Your task to perform on an android device: see tabs open on other devices in the chrome app Image 0: 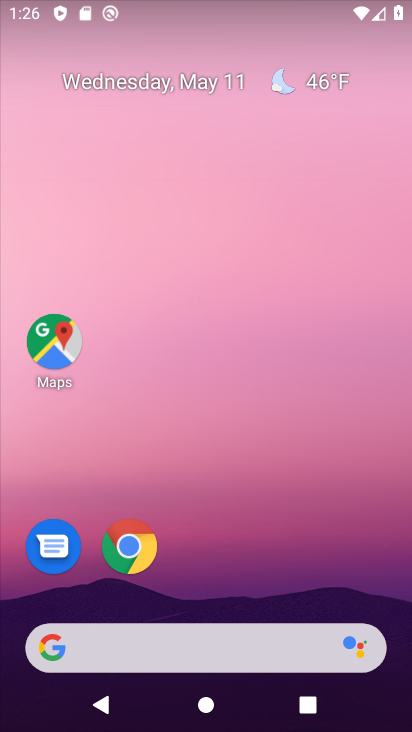
Step 0: drag from (196, 584) to (318, 98)
Your task to perform on an android device: see tabs open on other devices in the chrome app Image 1: 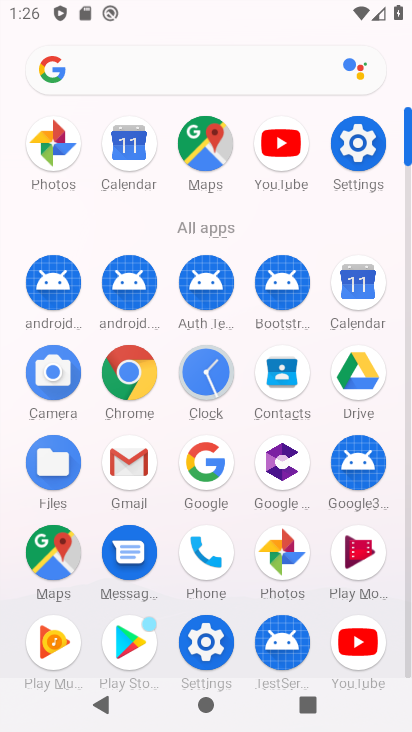
Step 1: click (124, 366)
Your task to perform on an android device: see tabs open on other devices in the chrome app Image 2: 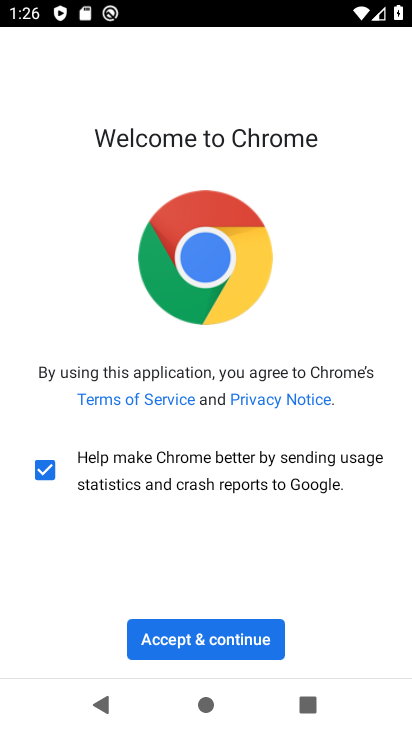
Step 2: click (214, 633)
Your task to perform on an android device: see tabs open on other devices in the chrome app Image 3: 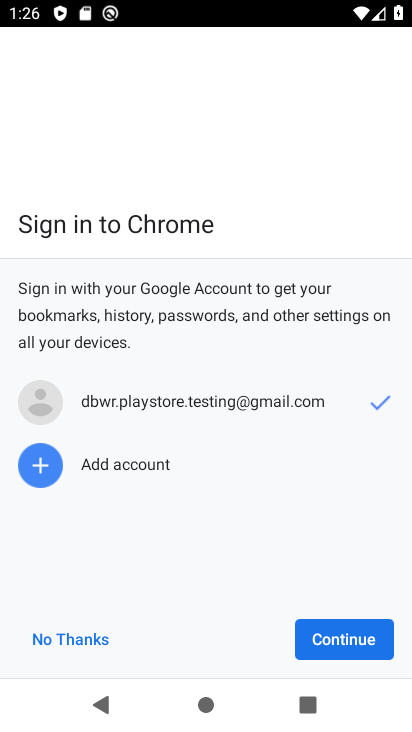
Step 3: click (351, 627)
Your task to perform on an android device: see tabs open on other devices in the chrome app Image 4: 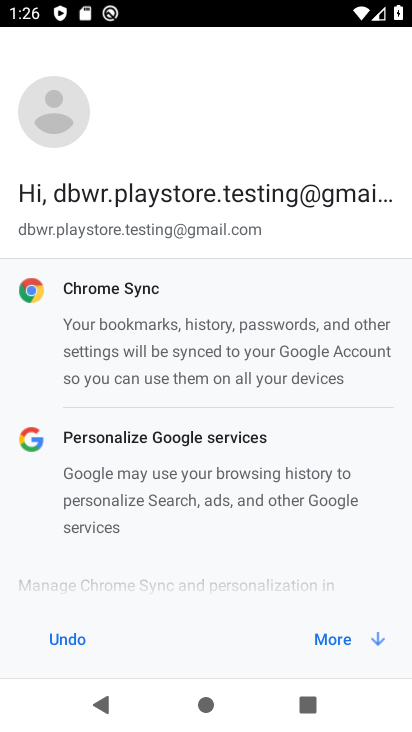
Step 4: click (341, 635)
Your task to perform on an android device: see tabs open on other devices in the chrome app Image 5: 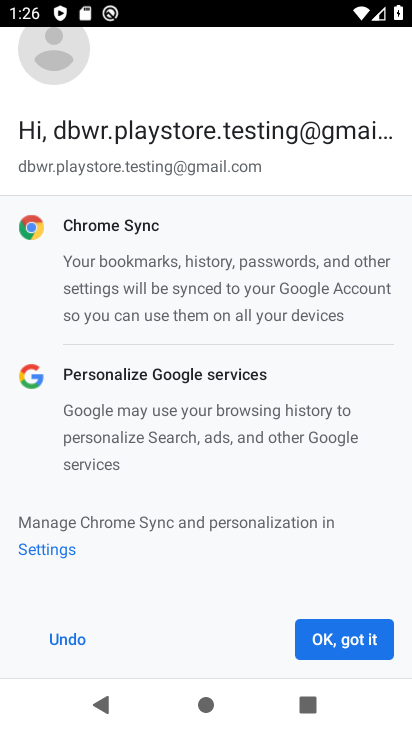
Step 5: click (341, 635)
Your task to perform on an android device: see tabs open on other devices in the chrome app Image 6: 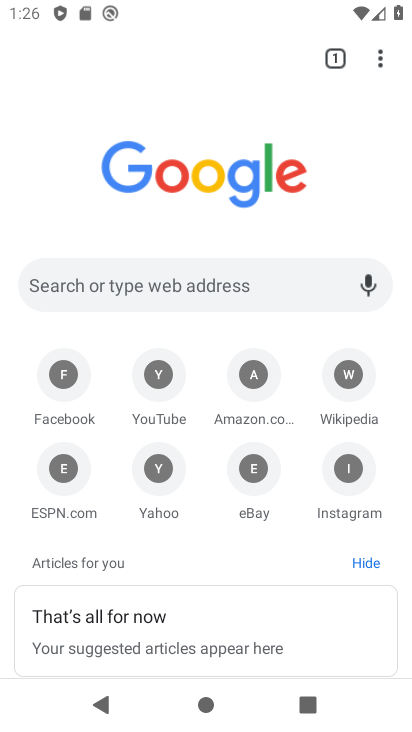
Step 6: drag from (381, 49) to (241, 279)
Your task to perform on an android device: see tabs open on other devices in the chrome app Image 7: 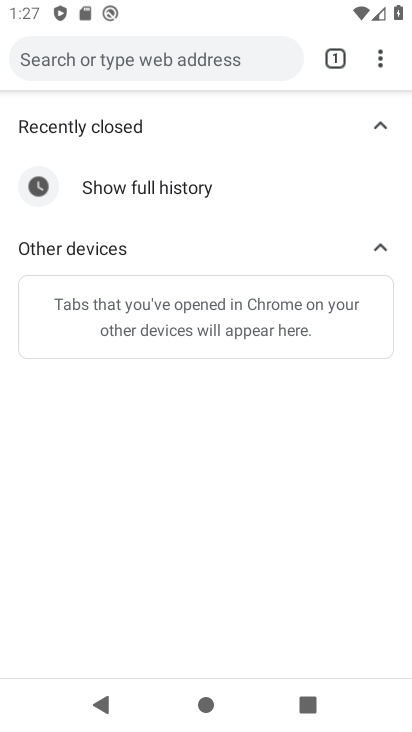
Step 7: click (377, 245)
Your task to perform on an android device: see tabs open on other devices in the chrome app Image 8: 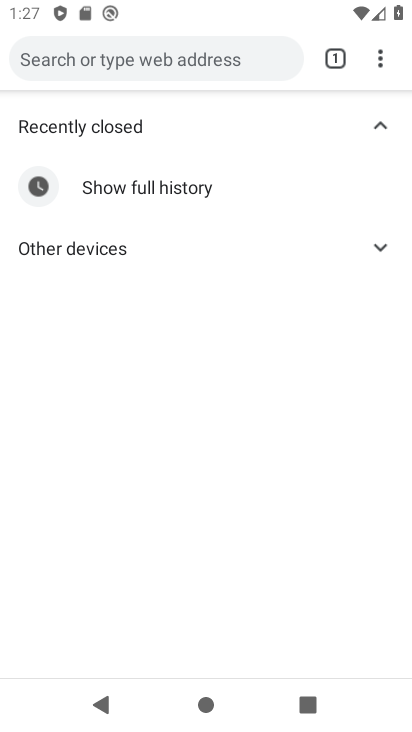
Step 8: click (376, 244)
Your task to perform on an android device: see tabs open on other devices in the chrome app Image 9: 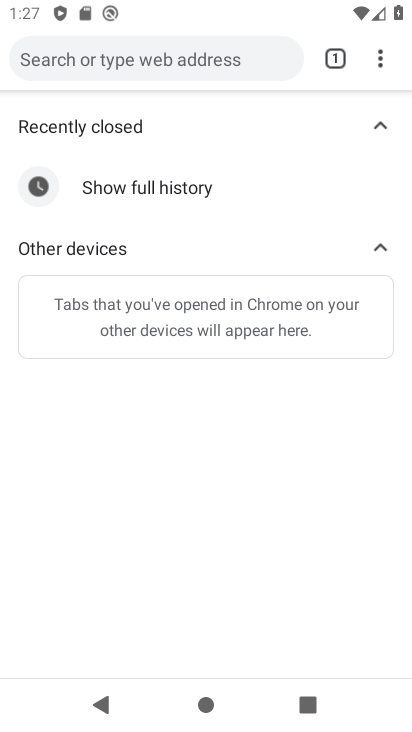
Step 9: task complete